Your task to perform on an android device: Search for alienware area 51 on ebay.com, select the first entry, and add it to the cart. Image 0: 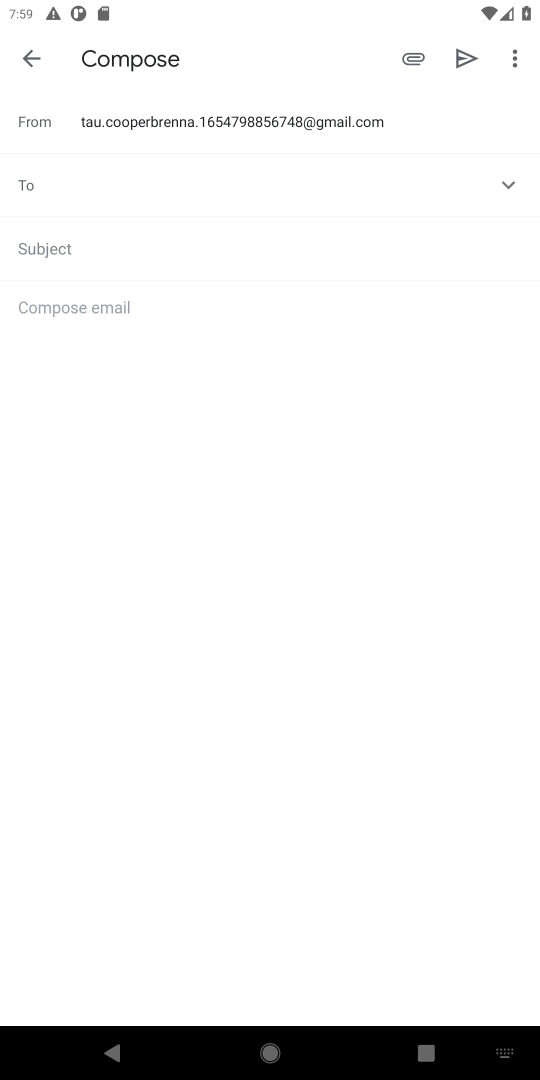
Step 0: press home button
Your task to perform on an android device: Search for alienware area 51 on ebay.com, select the first entry, and add it to the cart. Image 1: 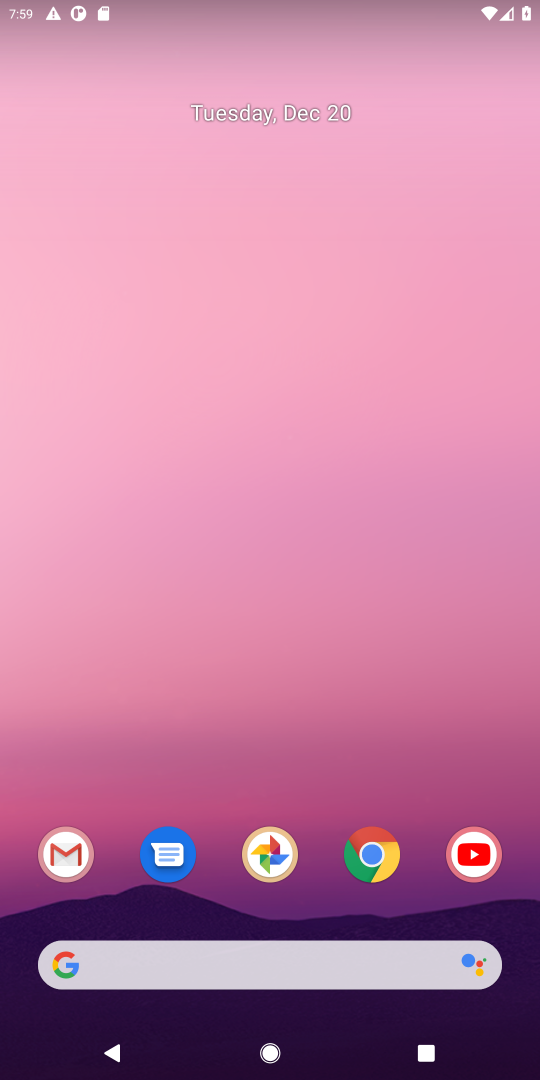
Step 1: click (374, 863)
Your task to perform on an android device: Search for alienware area 51 on ebay.com, select the first entry, and add it to the cart. Image 2: 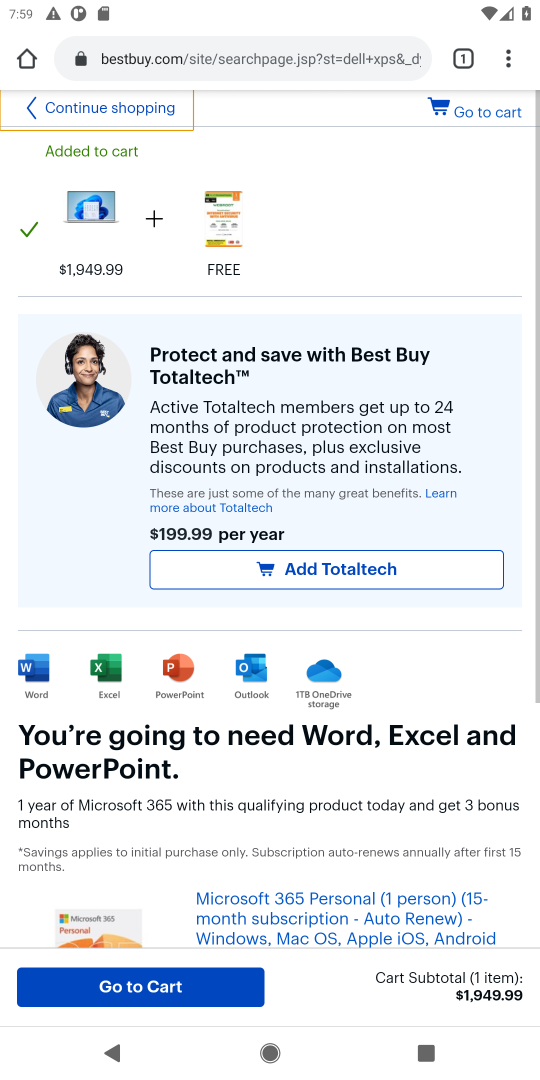
Step 2: click (180, 62)
Your task to perform on an android device: Search for alienware area 51 on ebay.com, select the first entry, and add it to the cart. Image 3: 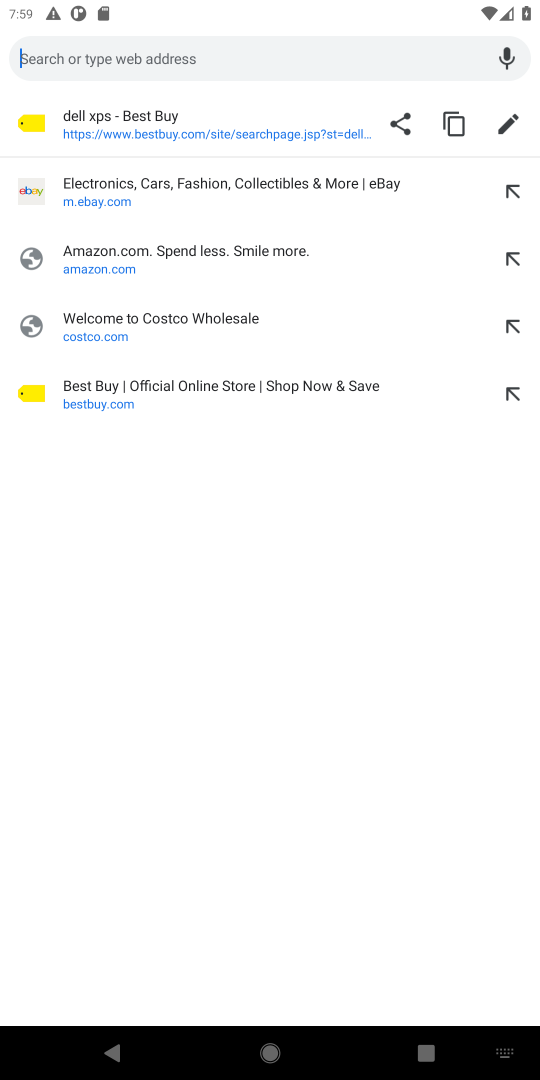
Step 3: click (90, 206)
Your task to perform on an android device: Search for alienware area 51 on ebay.com, select the first entry, and add it to the cart. Image 4: 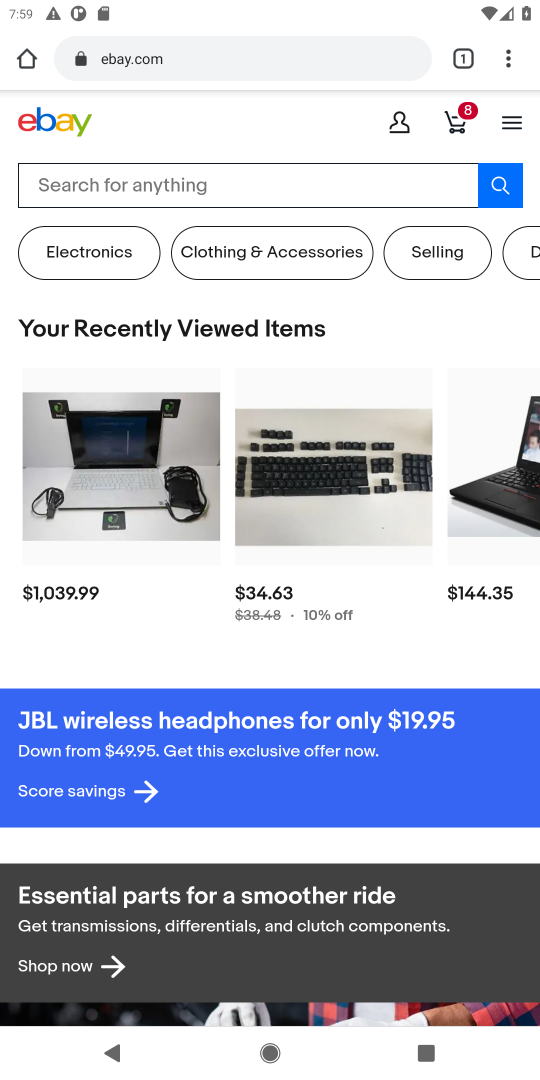
Step 4: click (101, 192)
Your task to perform on an android device: Search for alienware area 51 on ebay.com, select the first entry, and add it to the cart. Image 5: 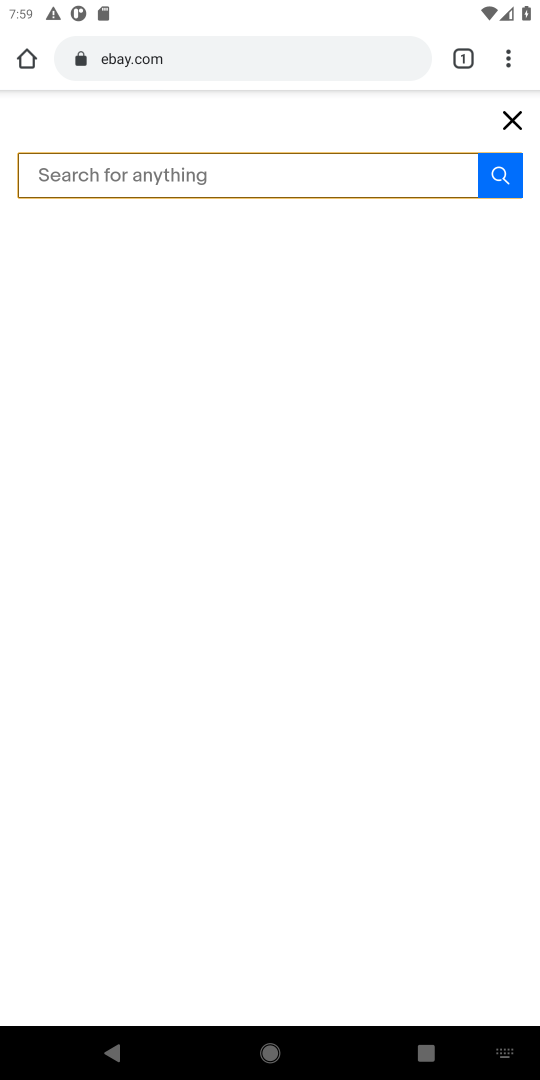
Step 5: type "alienware area 51 "
Your task to perform on an android device: Search for alienware area 51 on ebay.com, select the first entry, and add it to the cart. Image 6: 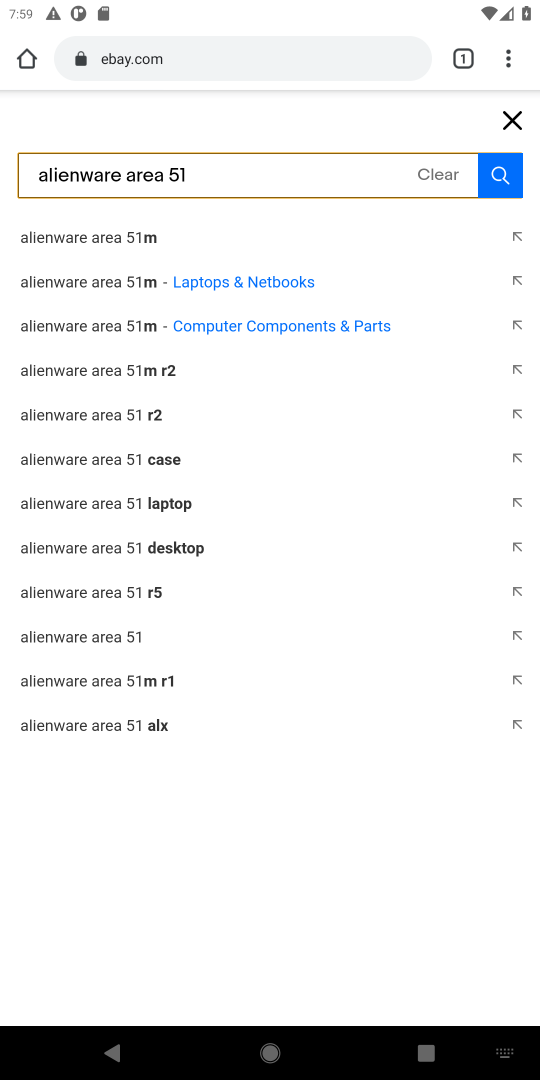
Step 6: click (95, 642)
Your task to perform on an android device: Search for alienware area 51 on ebay.com, select the first entry, and add it to the cart. Image 7: 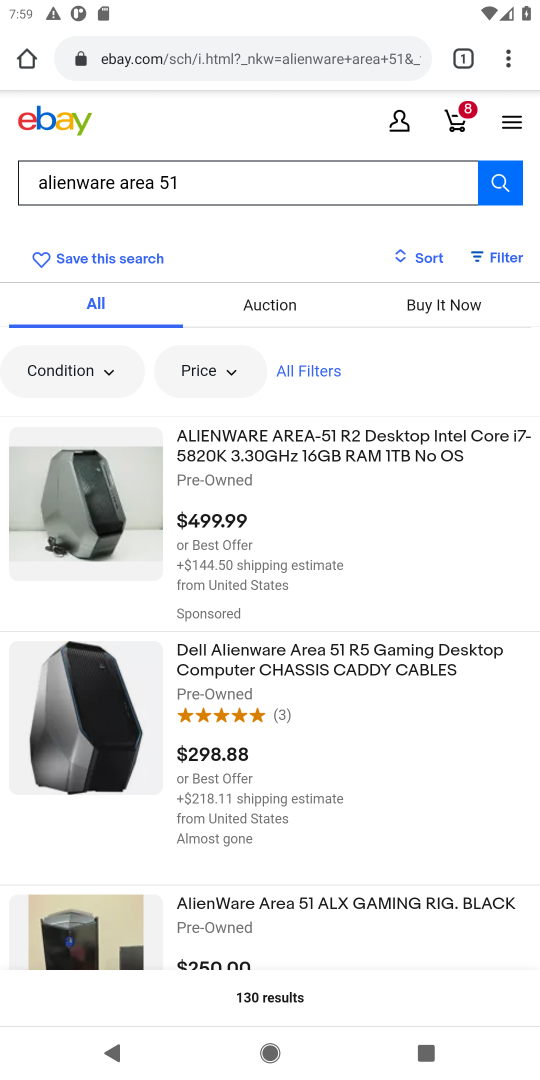
Step 7: click (214, 476)
Your task to perform on an android device: Search for alienware area 51 on ebay.com, select the first entry, and add it to the cart. Image 8: 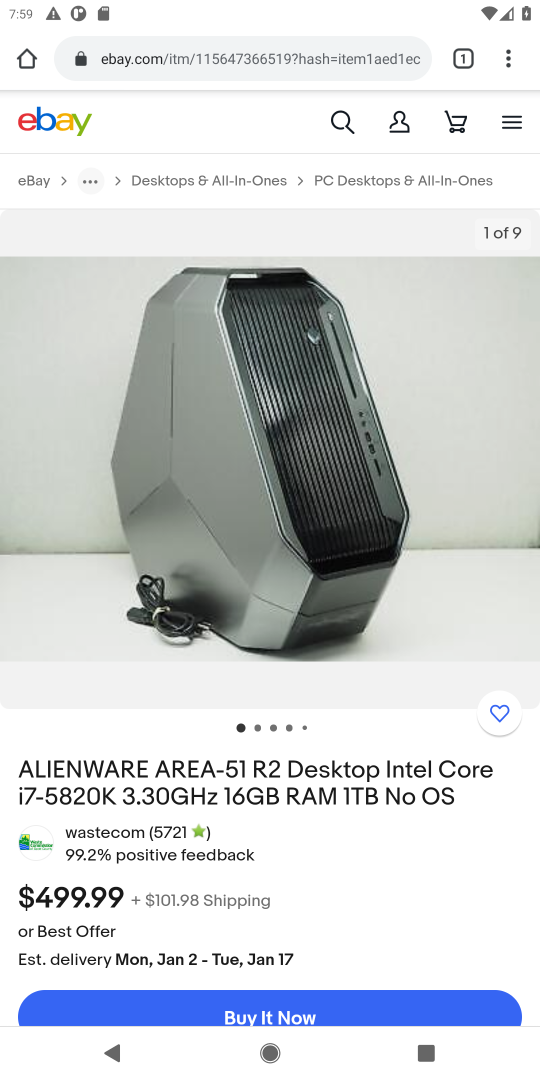
Step 8: drag from (252, 807) to (184, 383)
Your task to perform on an android device: Search for alienware area 51 on ebay.com, select the first entry, and add it to the cart. Image 9: 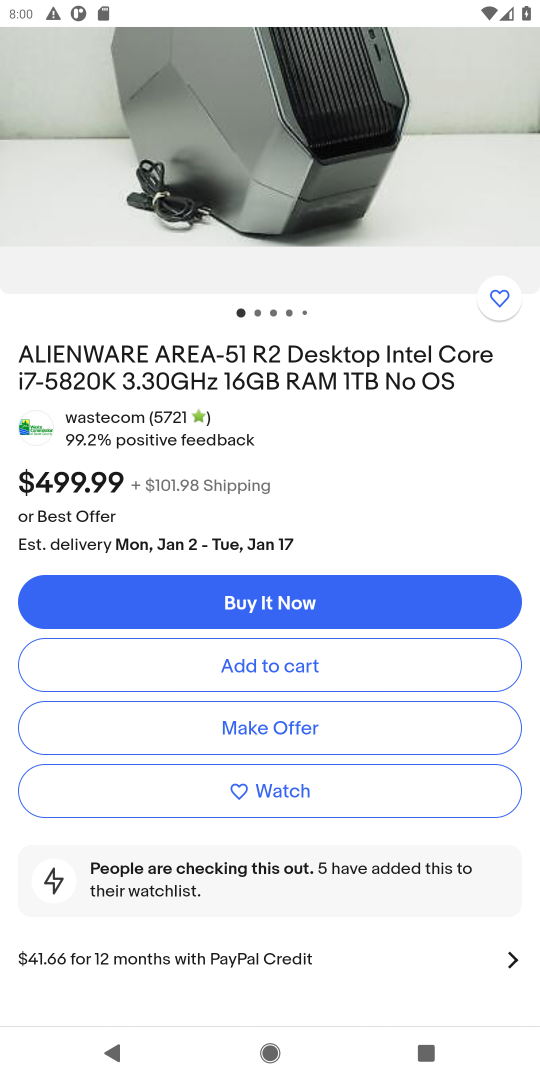
Step 9: click (241, 665)
Your task to perform on an android device: Search for alienware area 51 on ebay.com, select the first entry, and add it to the cart. Image 10: 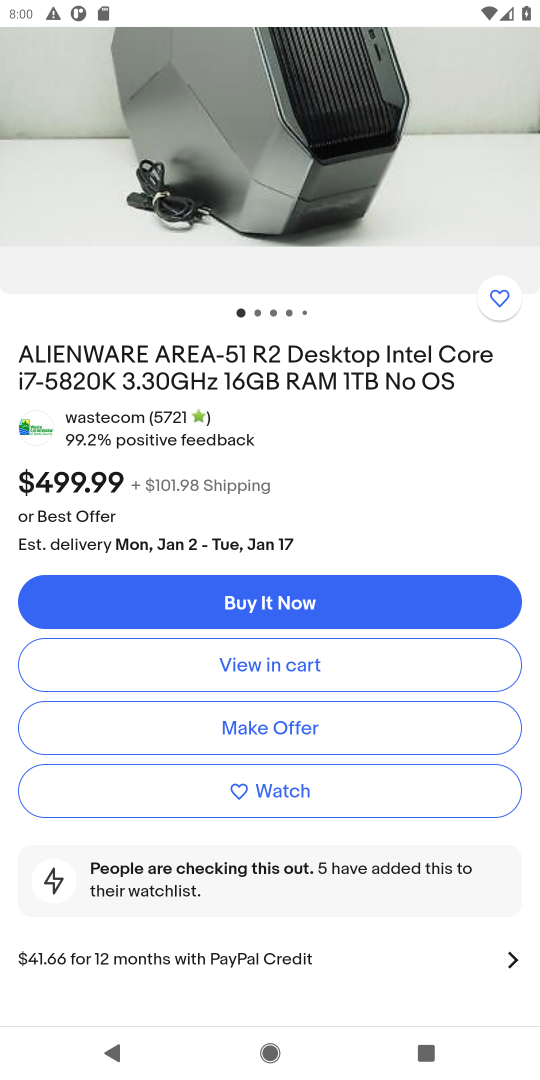
Step 10: task complete